Your task to perform on an android device: move an email to a new category in the gmail app Image 0: 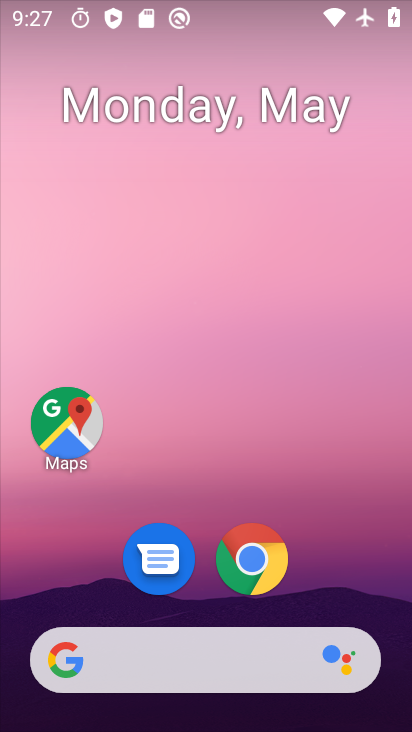
Step 0: drag from (317, 601) to (287, 205)
Your task to perform on an android device: move an email to a new category in the gmail app Image 1: 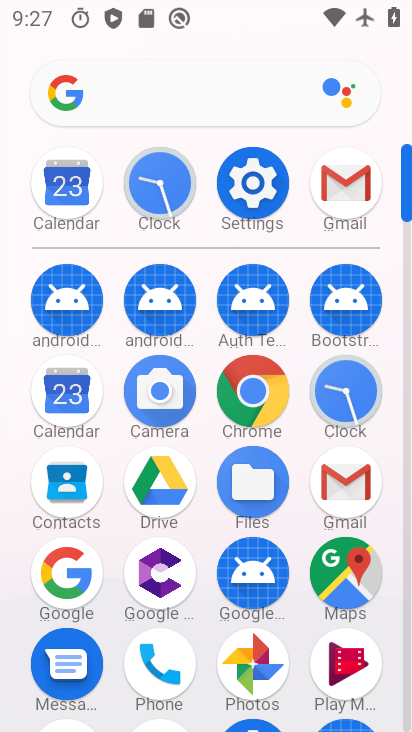
Step 1: click (341, 488)
Your task to perform on an android device: move an email to a new category in the gmail app Image 2: 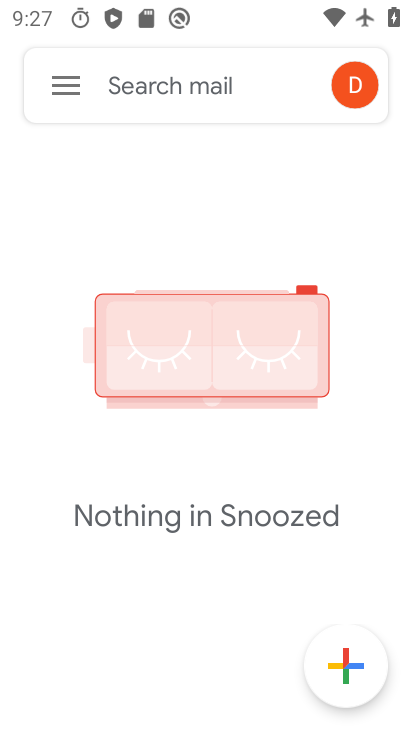
Step 2: click (44, 78)
Your task to perform on an android device: move an email to a new category in the gmail app Image 3: 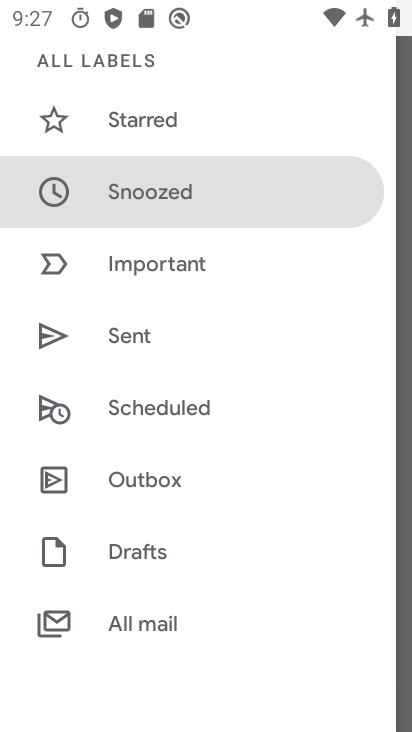
Step 3: click (172, 617)
Your task to perform on an android device: move an email to a new category in the gmail app Image 4: 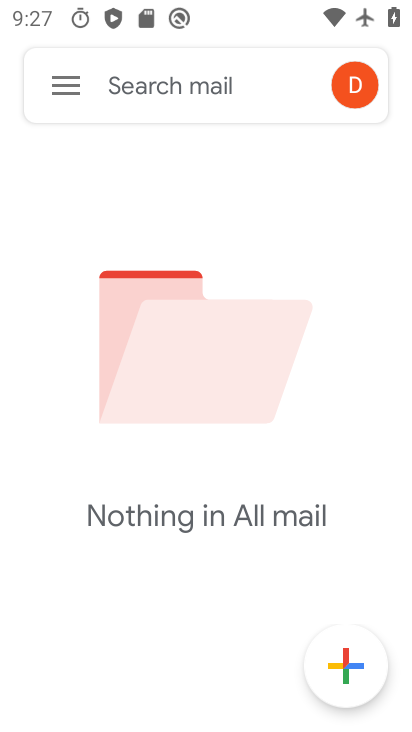
Step 4: task complete